Your task to perform on an android device: change keyboard looks Image 0: 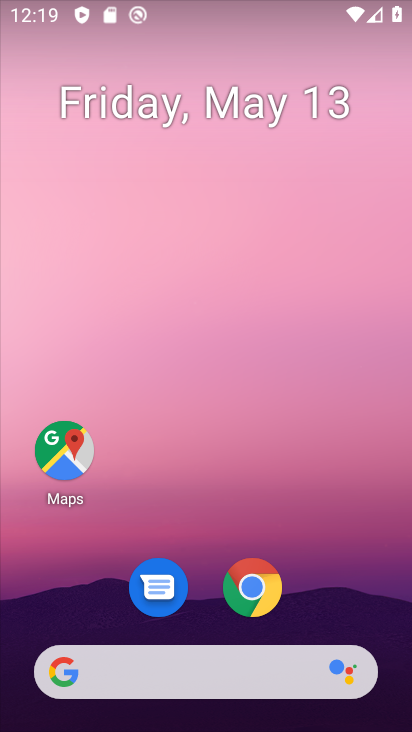
Step 0: drag from (167, 588) to (246, 86)
Your task to perform on an android device: change keyboard looks Image 1: 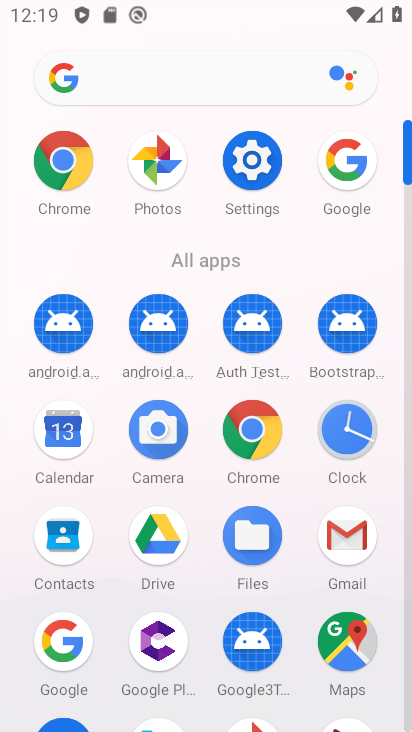
Step 1: click (236, 152)
Your task to perform on an android device: change keyboard looks Image 2: 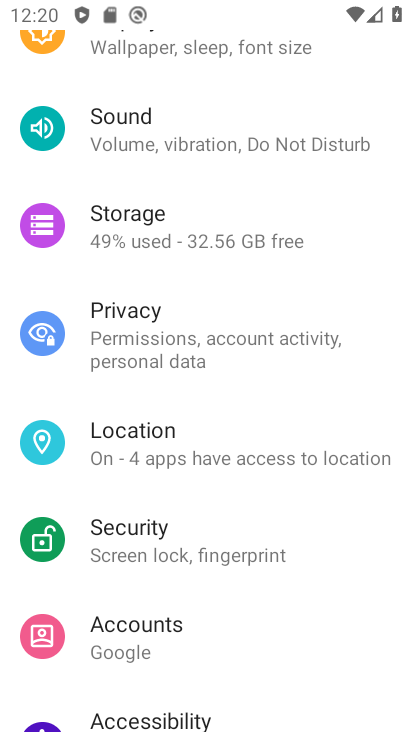
Step 2: drag from (149, 656) to (295, 76)
Your task to perform on an android device: change keyboard looks Image 3: 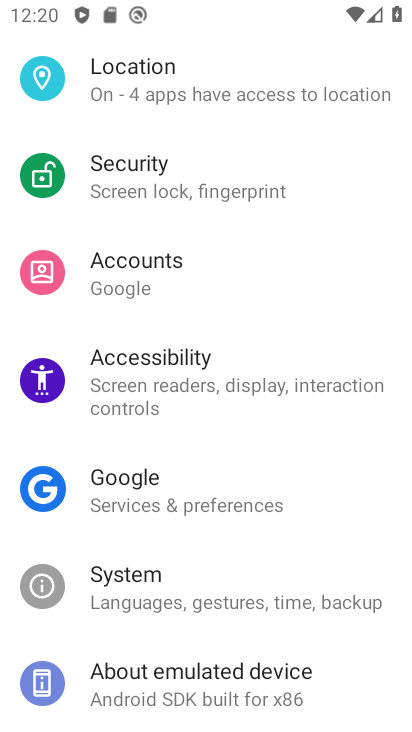
Step 3: drag from (168, 628) to (277, 160)
Your task to perform on an android device: change keyboard looks Image 4: 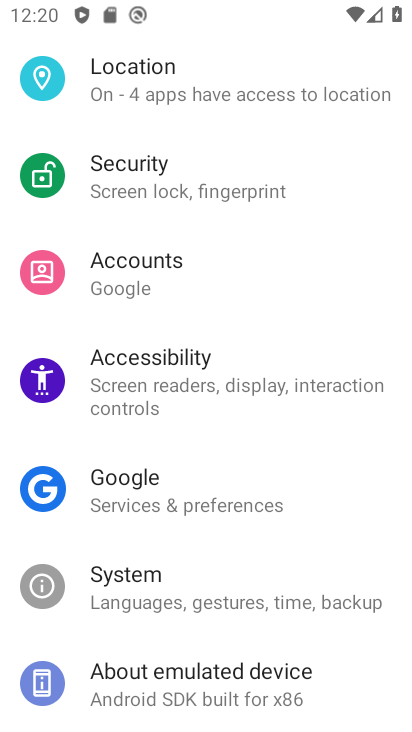
Step 4: click (153, 683)
Your task to perform on an android device: change keyboard looks Image 5: 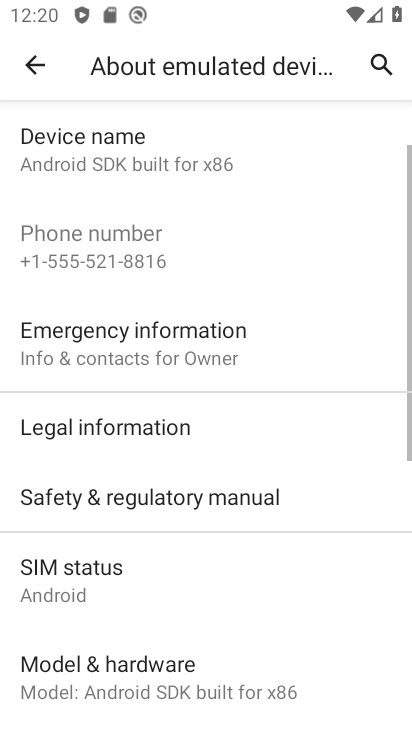
Step 5: click (45, 64)
Your task to perform on an android device: change keyboard looks Image 6: 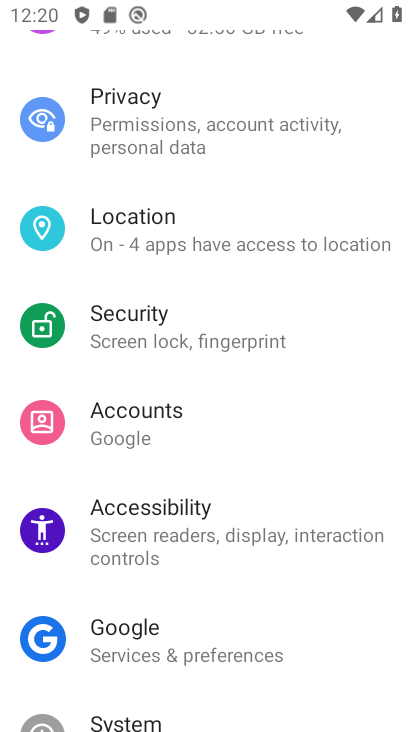
Step 6: drag from (162, 576) to (286, 74)
Your task to perform on an android device: change keyboard looks Image 7: 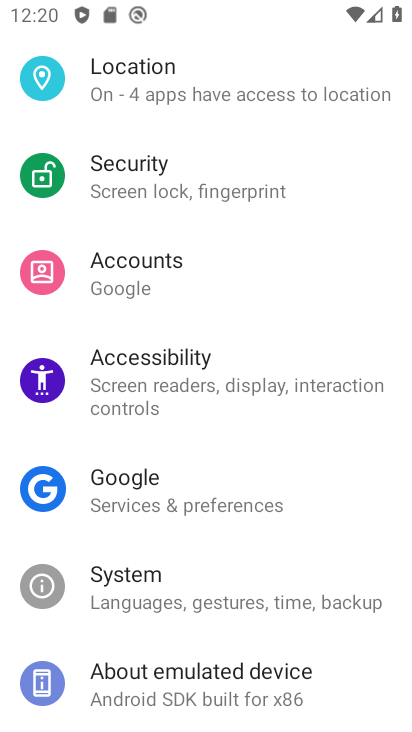
Step 7: drag from (219, 186) to (355, 15)
Your task to perform on an android device: change keyboard looks Image 8: 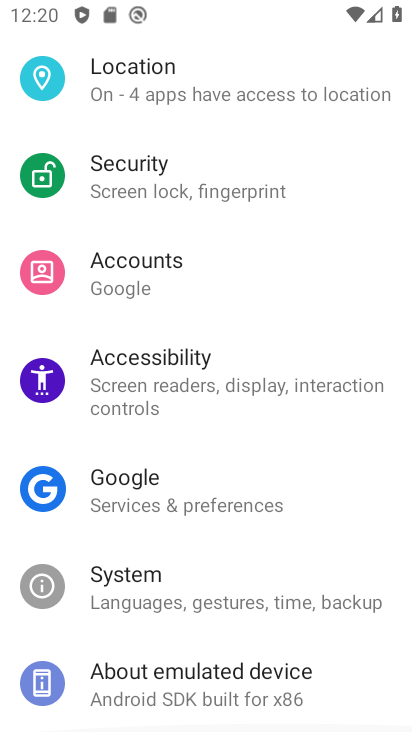
Step 8: click (124, 600)
Your task to perform on an android device: change keyboard looks Image 9: 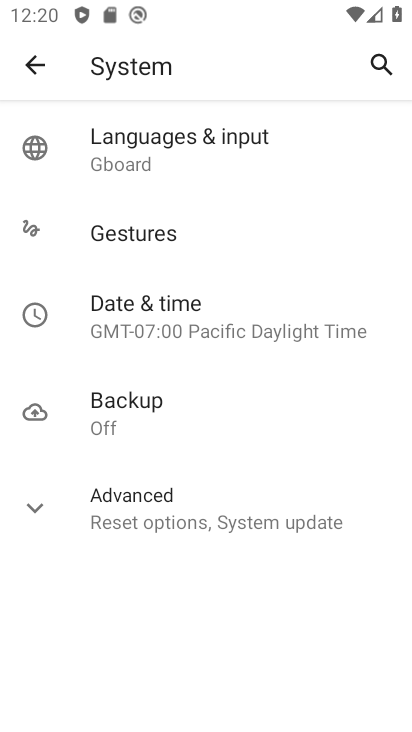
Step 9: click (136, 160)
Your task to perform on an android device: change keyboard looks Image 10: 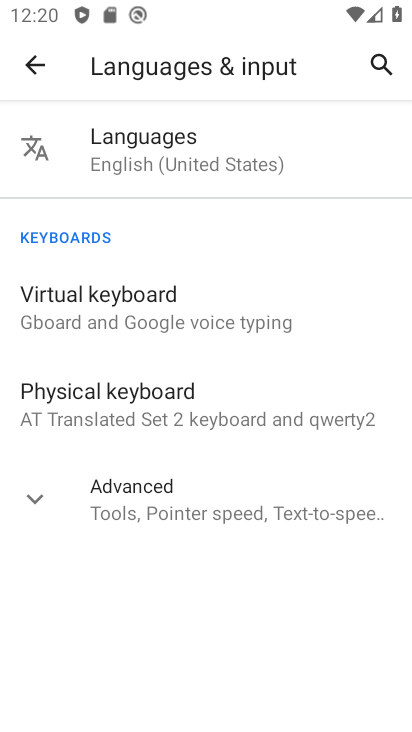
Step 10: click (108, 310)
Your task to perform on an android device: change keyboard looks Image 11: 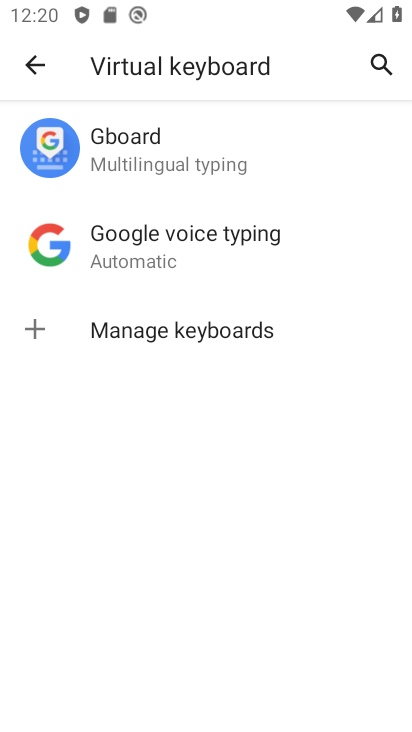
Step 11: click (135, 148)
Your task to perform on an android device: change keyboard looks Image 12: 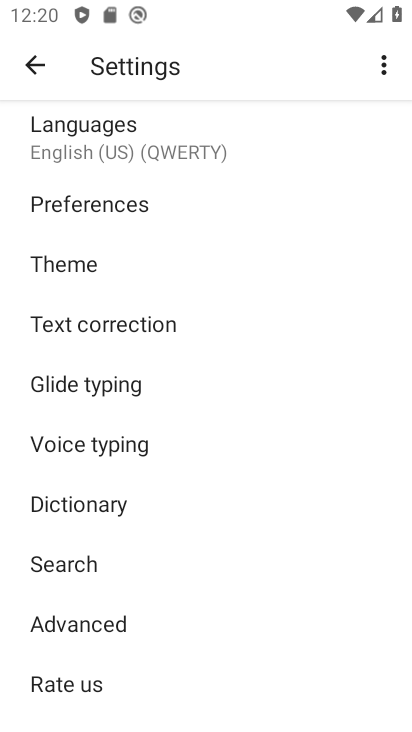
Step 12: click (80, 280)
Your task to perform on an android device: change keyboard looks Image 13: 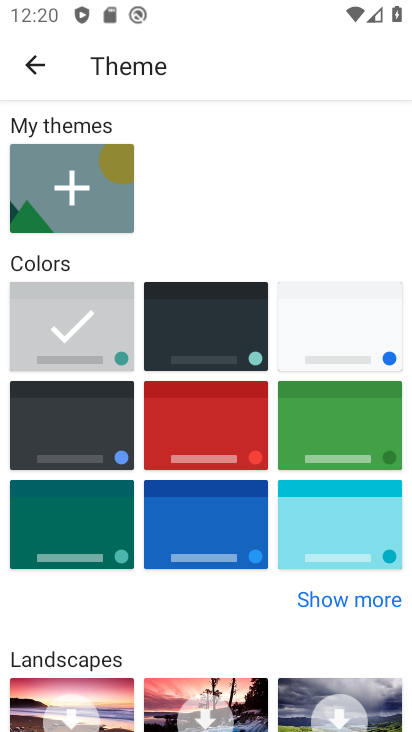
Step 13: click (226, 434)
Your task to perform on an android device: change keyboard looks Image 14: 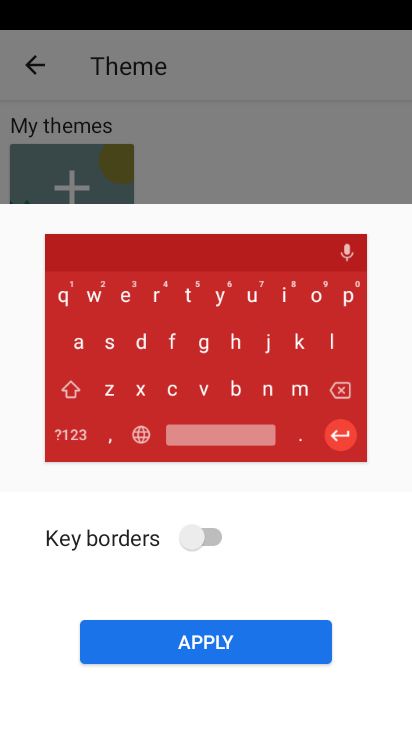
Step 14: click (171, 642)
Your task to perform on an android device: change keyboard looks Image 15: 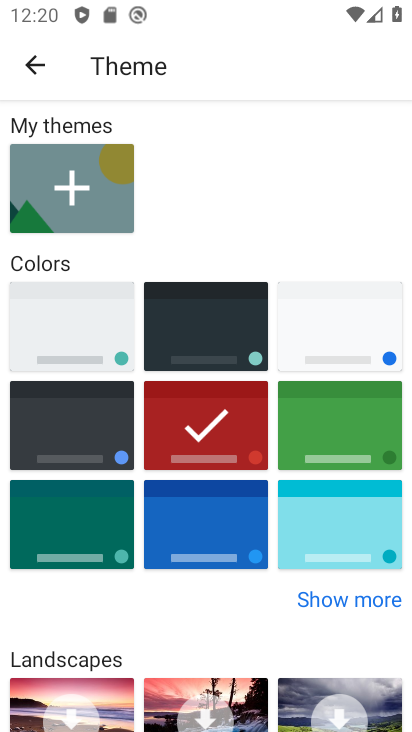
Step 15: task complete